Your task to perform on an android device: Show me recent news Image 0: 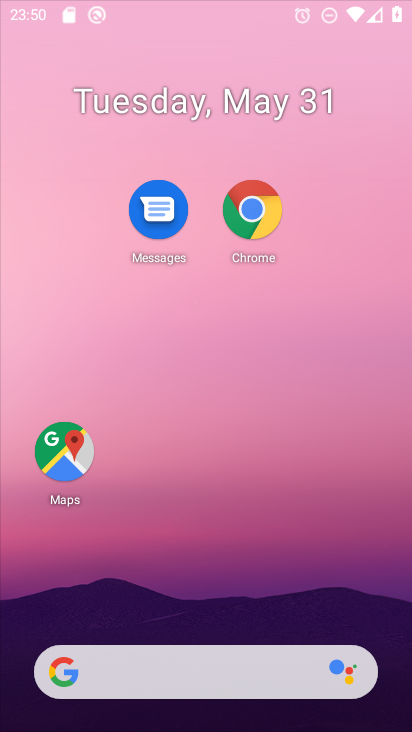
Step 0: press home button
Your task to perform on an android device: Show me recent news Image 1: 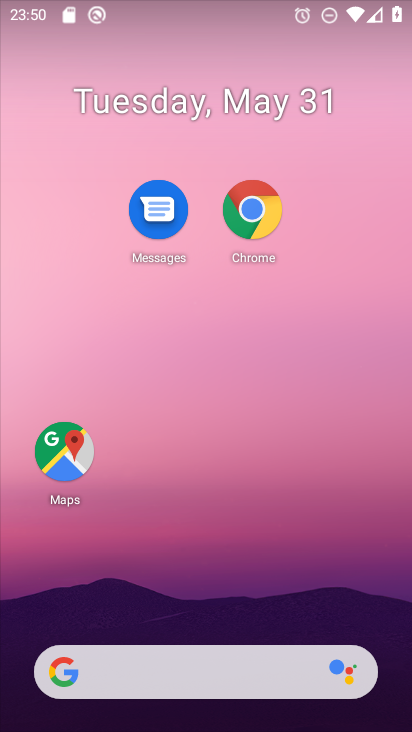
Step 1: task complete